Your task to perform on an android device: open app "Speedtest by Ookla" Image 0: 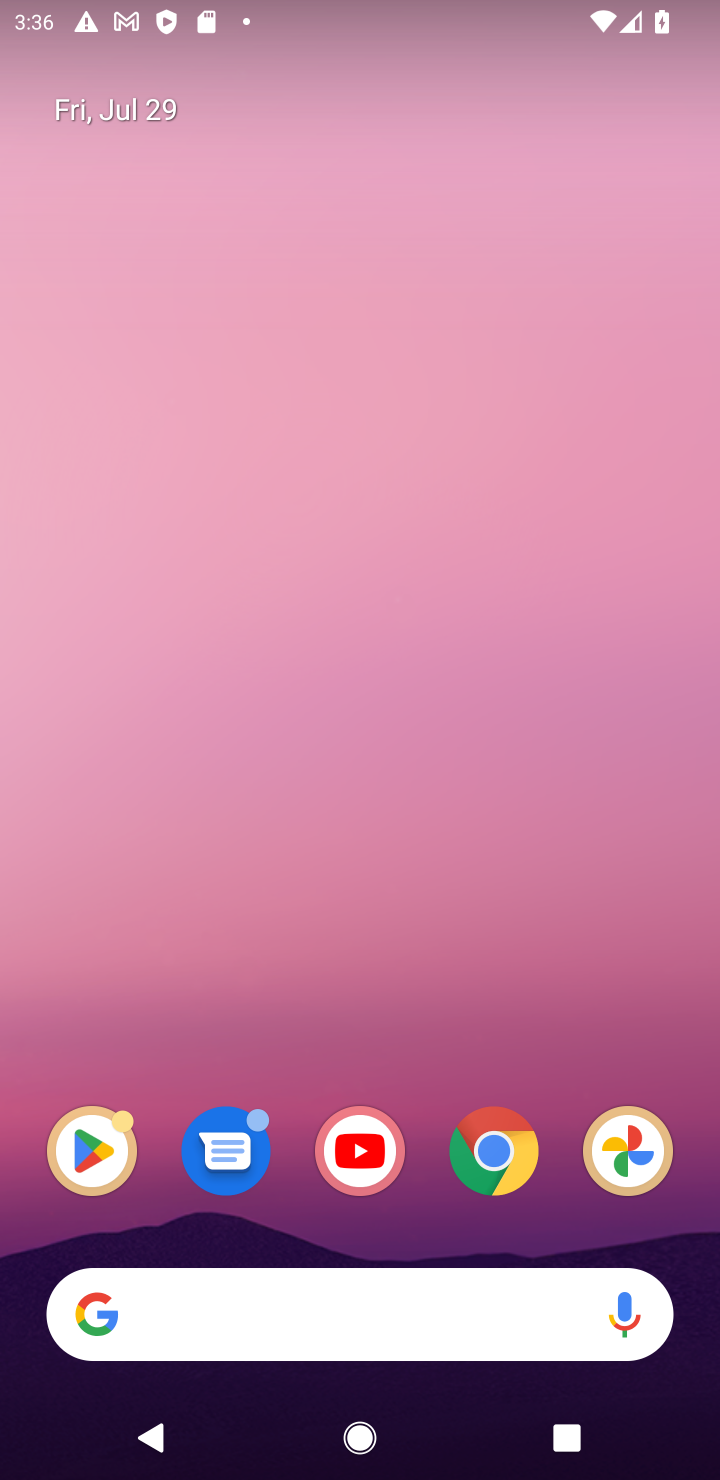
Step 0: drag from (427, 1089) to (439, 120)
Your task to perform on an android device: open app "Speedtest by Ookla" Image 1: 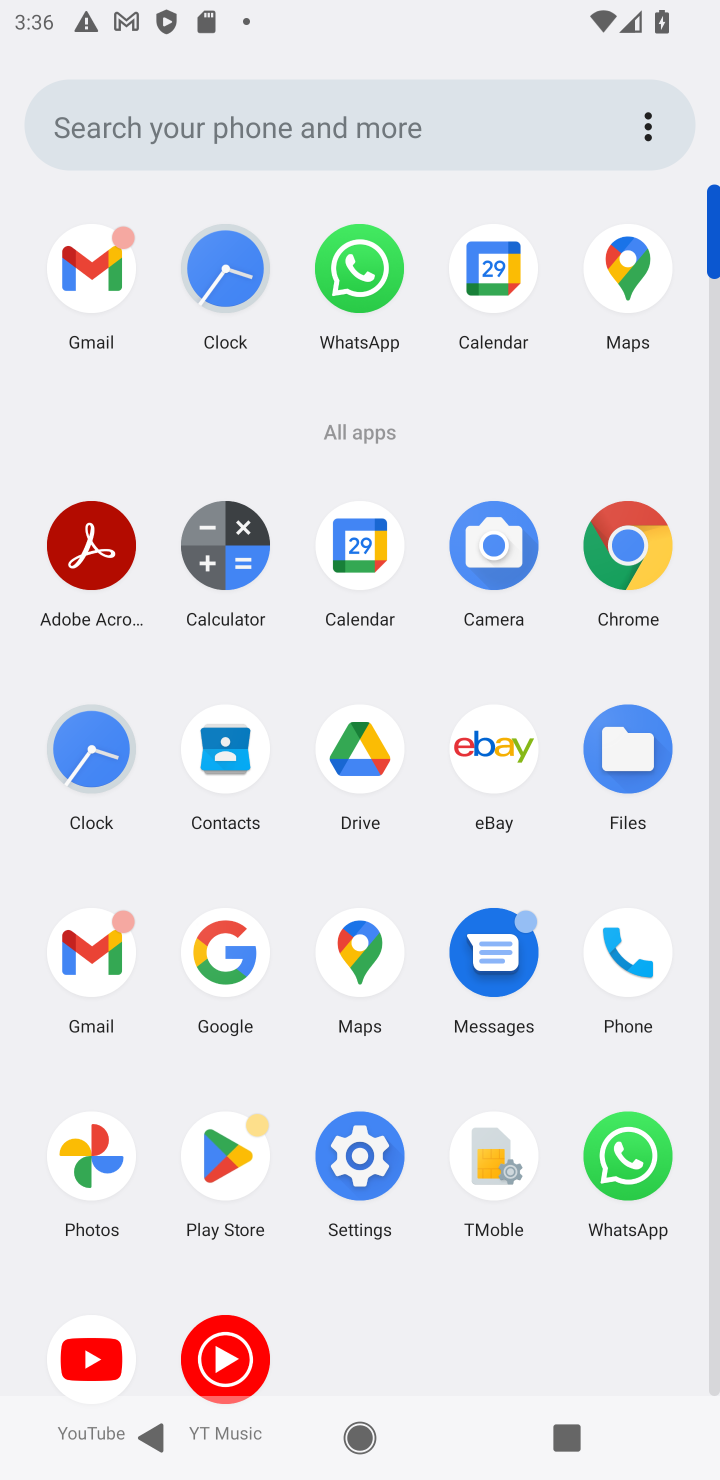
Step 1: click (226, 1158)
Your task to perform on an android device: open app "Speedtest by Ookla" Image 2: 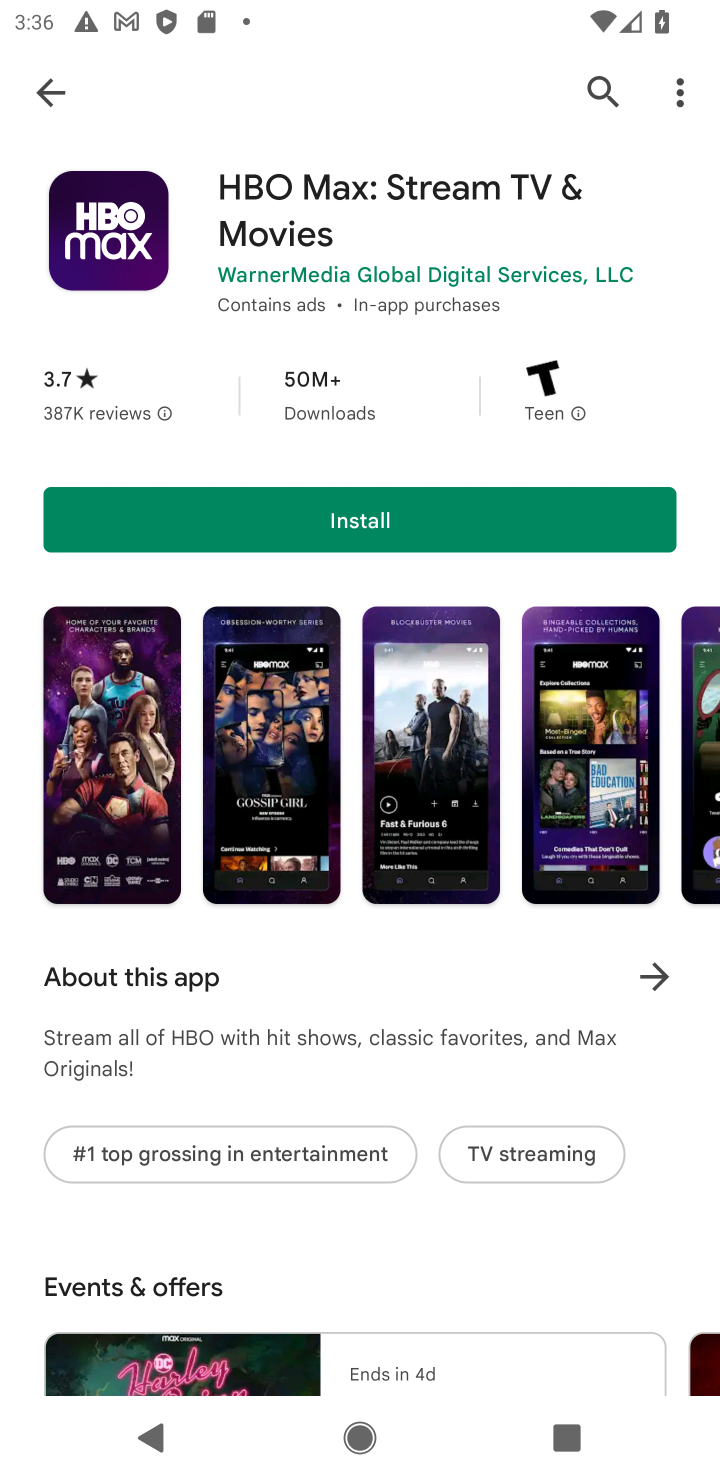
Step 2: click (607, 101)
Your task to perform on an android device: open app "Speedtest by Ookla" Image 3: 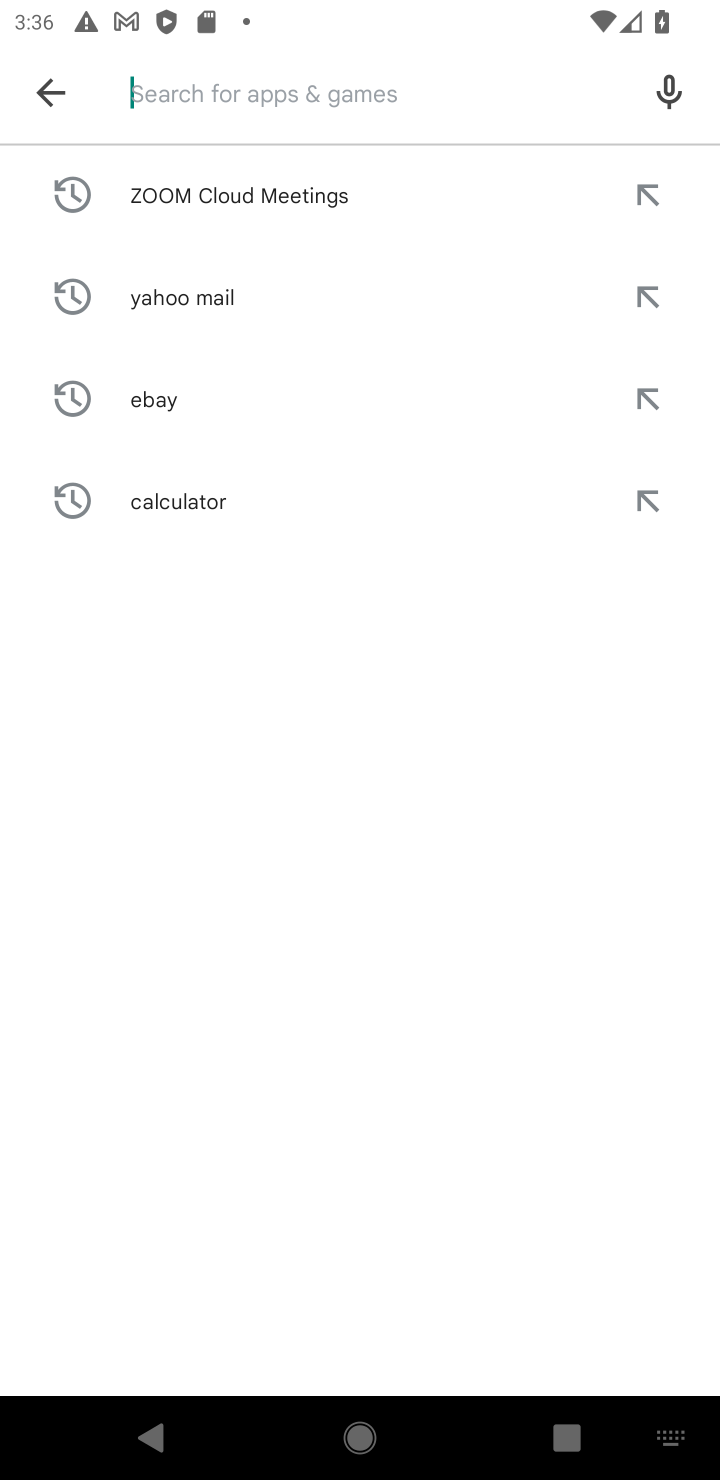
Step 3: type "Speedtest by Ookla""
Your task to perform on an android device: open app "Speedtest by Ookla" Image 4: 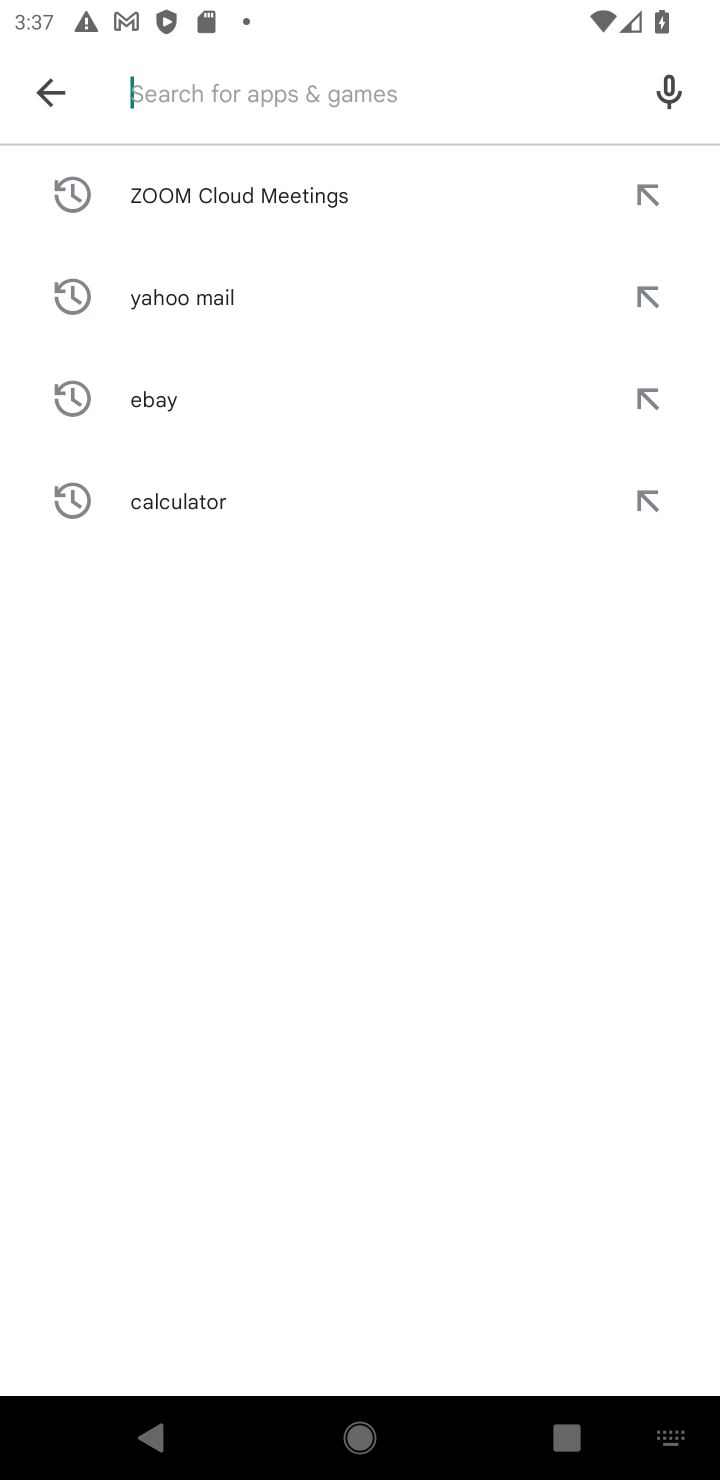
Step 4: type "Speedtest by Ookla""
Your task to perform on an android device: open app "Speedtest by Ookla" Image 5: 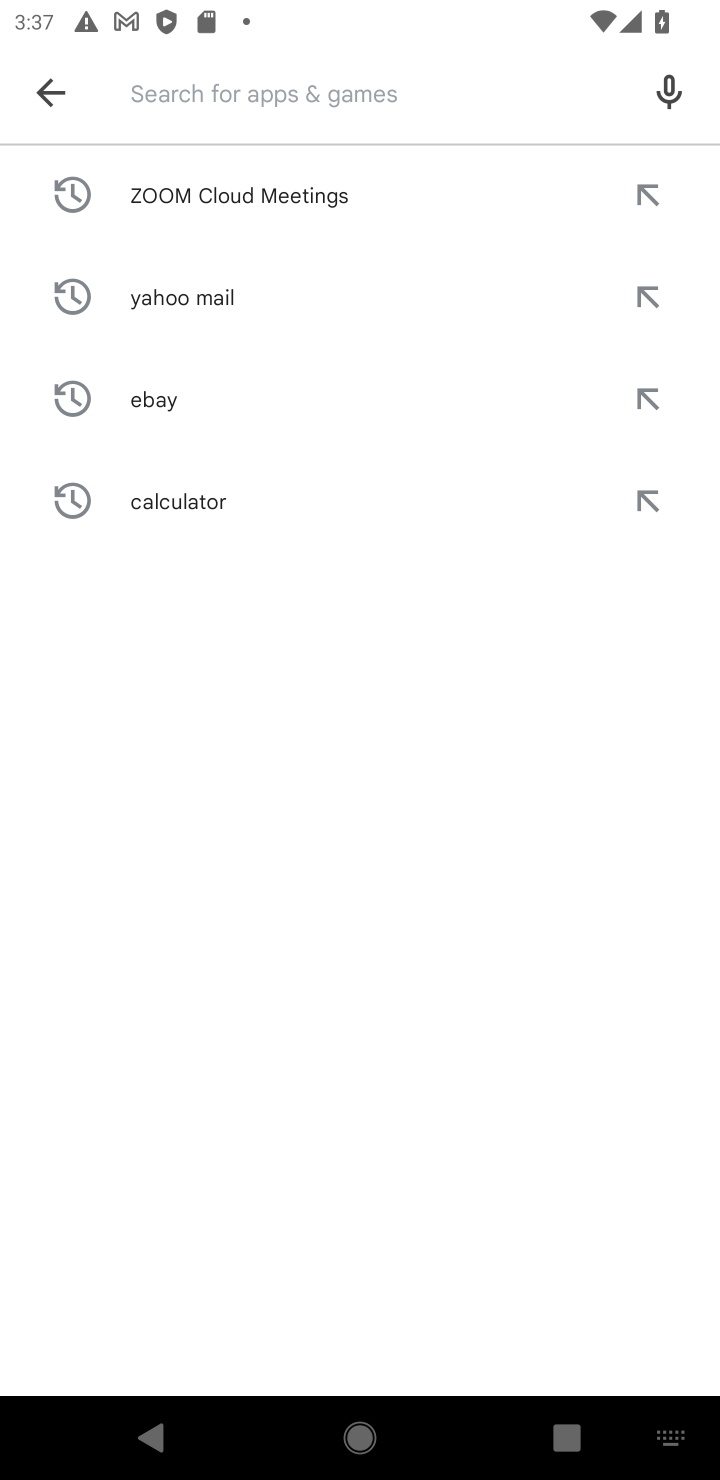
Step 5: type "speedtest by ookla"
Your task to perform on an android device: open app "Speedtest by Ookla" Image 6: 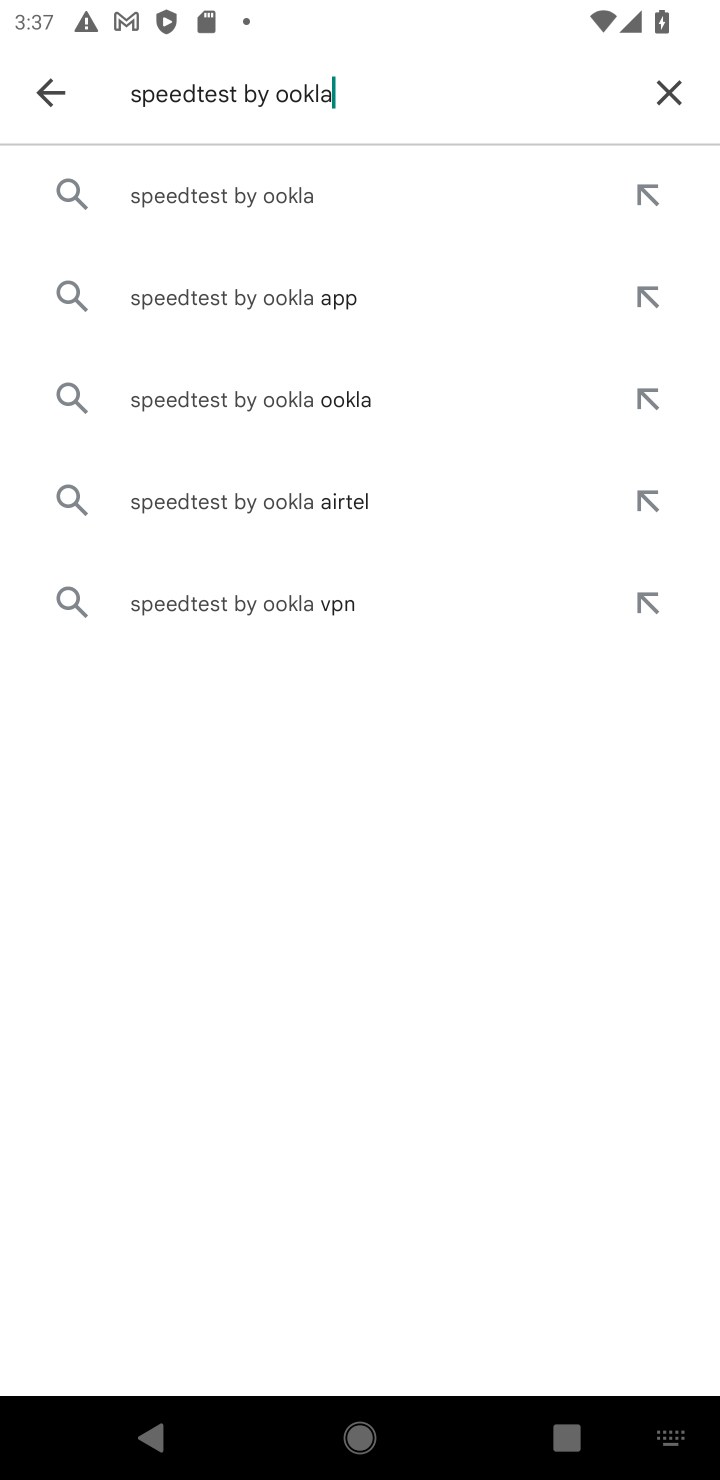
Step 6: click (245, 183)
Your task to perform on an android device: open app "Speedtest by Ookla" Image 7: 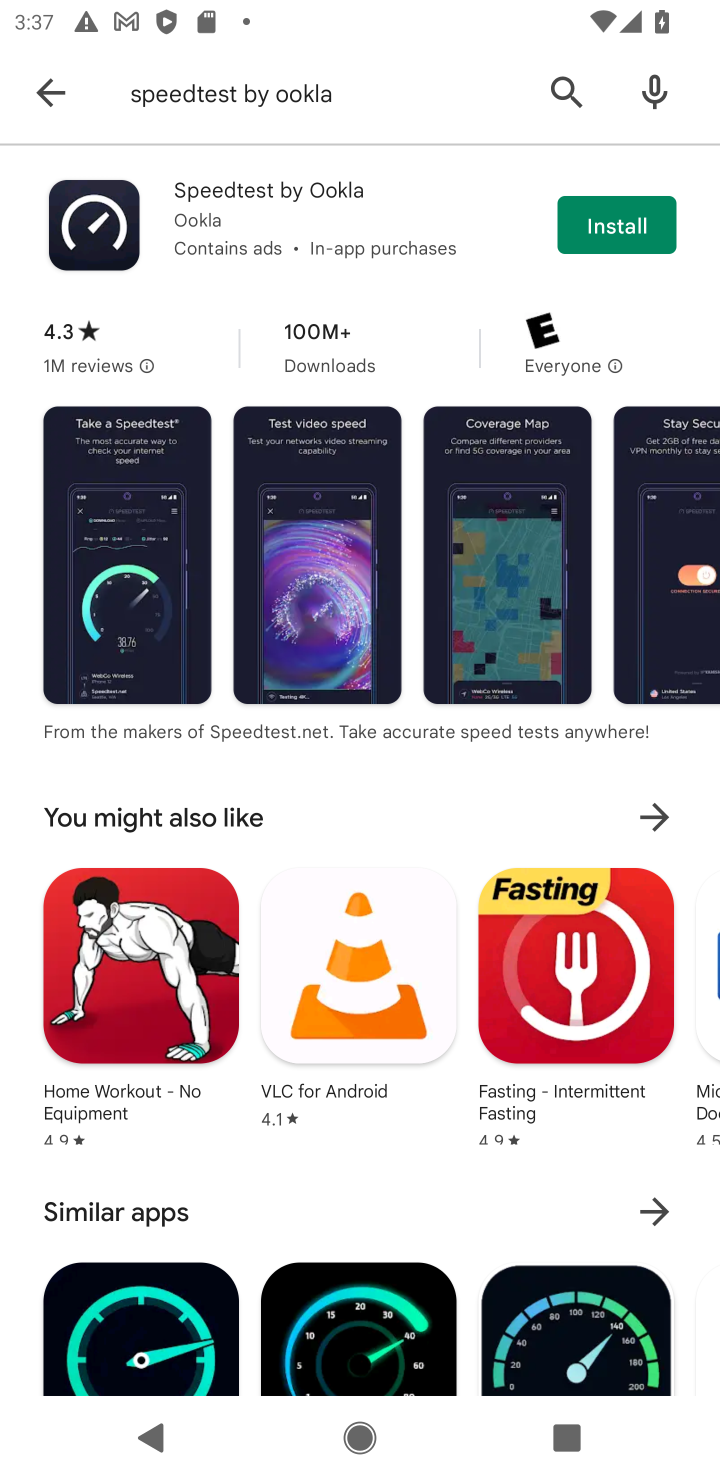
Step 7: task complete